Your task to perform on an android device: See recent photos Image 0: 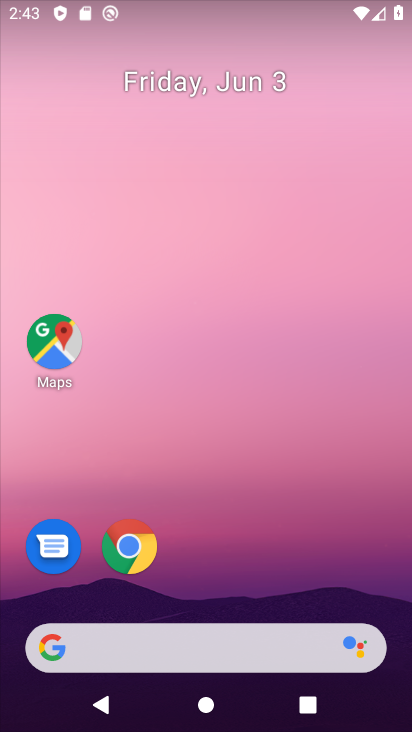
Step 0: drag from (230, 408) to (229, 203)
Your task to perform on an android device: See recent photos Image 1: 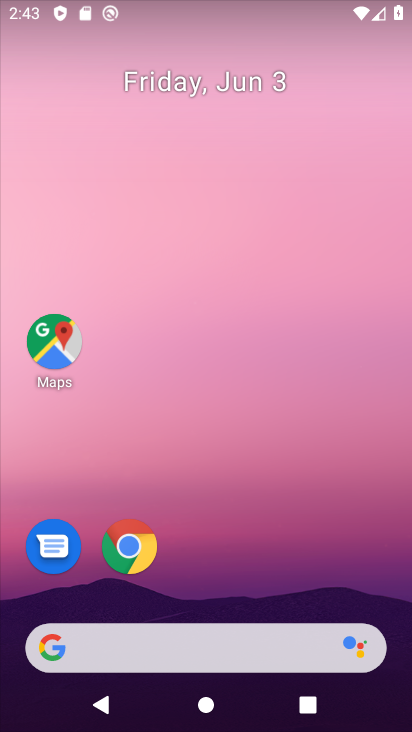
Step 1: drag from (281, 587) to (276, 223)
Your task to perform on an android device: See recent photos Image 2: 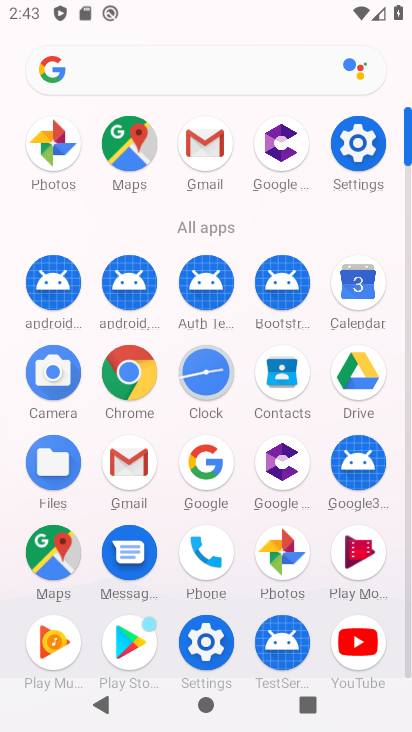
Step 2: click (287, 562)
Your task to perform on an android device: See recent photos Image 3: 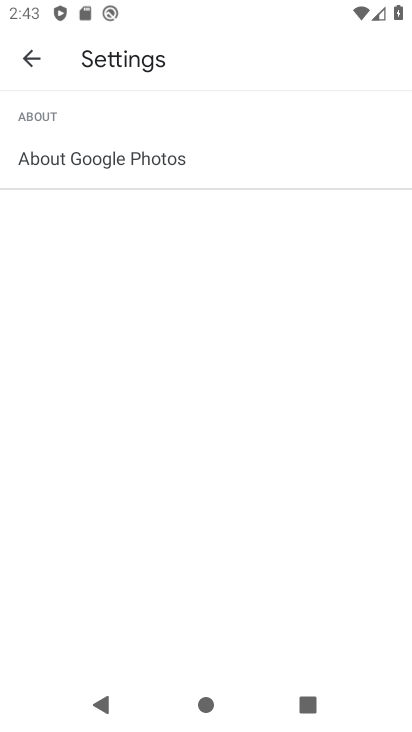
Step 3: click (2, 55)
Your task to perform on an android device: See recent photos Image 4: 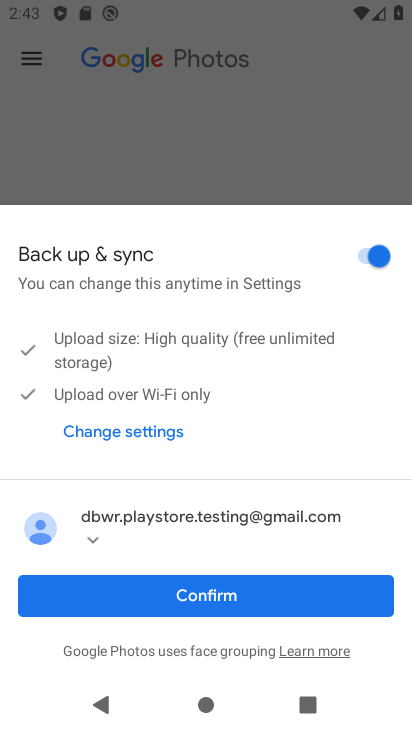
Step 4: click (281, 587)
Your task to perform on an android device: See recent photos Image 5: 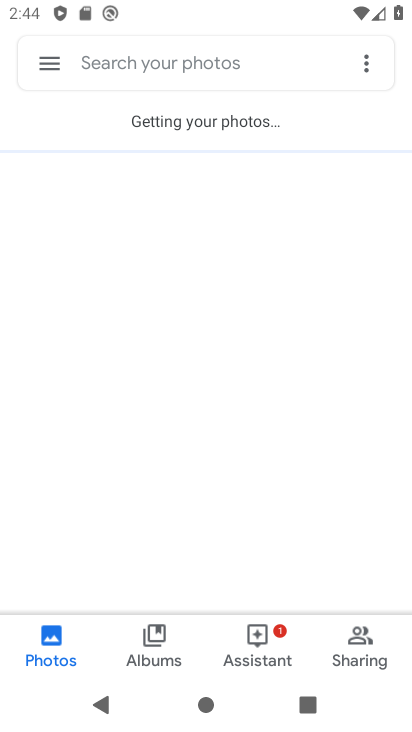
Step 5: task complete